Your task to perform on an android device: all mails in gmail Image 0: 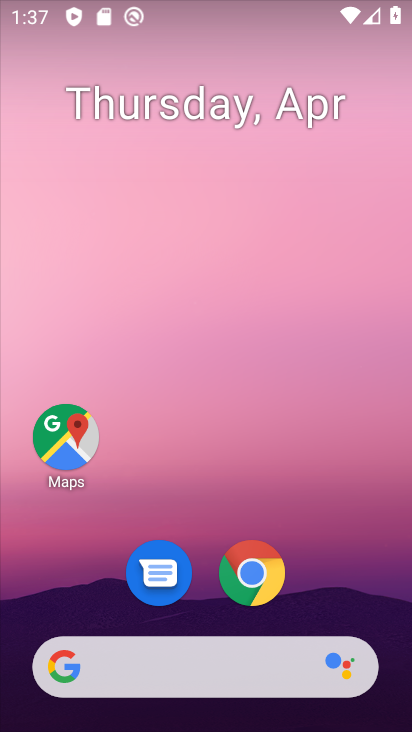
Step 0: drag from (352, 599) to (303, 34)
Your task to perform on an android device: all mails in gmail Image 1: 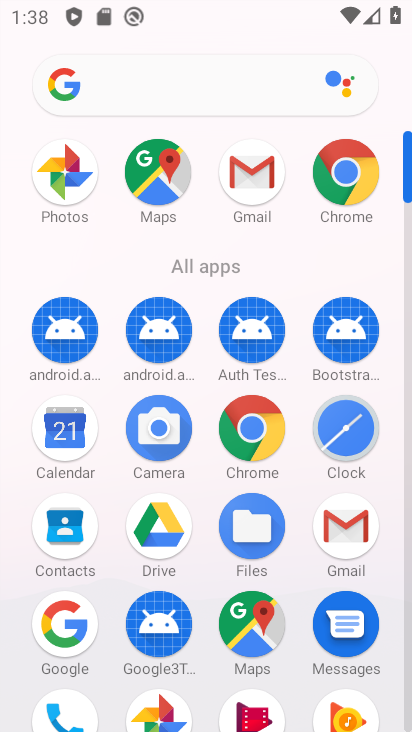
Step 1: click (239, 175)
Your task to perform on an android device: all mails in gmail Image 2: 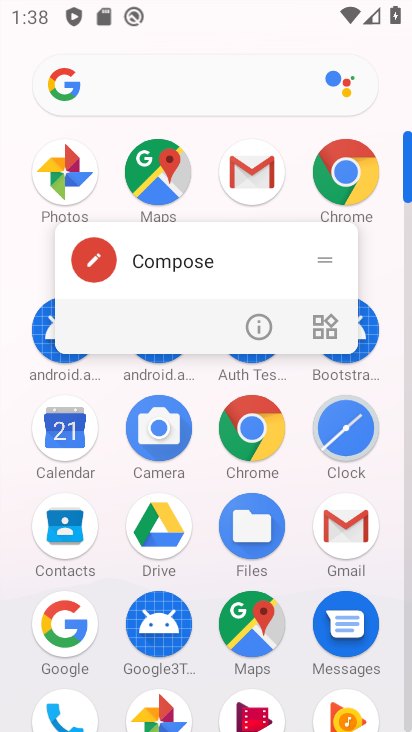
Step 2: click (246, 179)
Your task to perform on an android device: all mails in gmail Image 3: 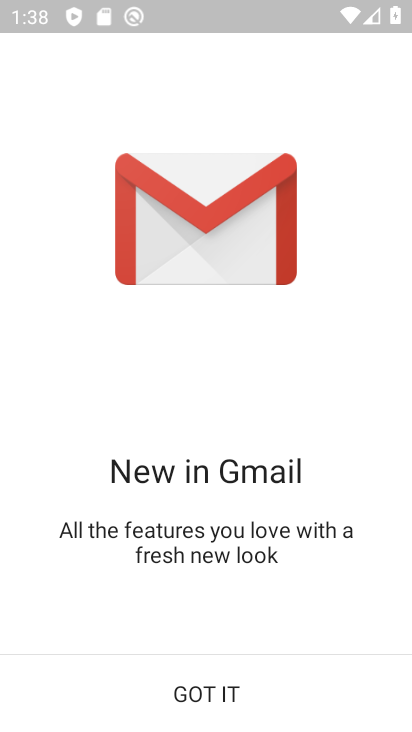
Step 3: click (147, 689)
Your task to perform on an android device: all mails in gmail Image 4: 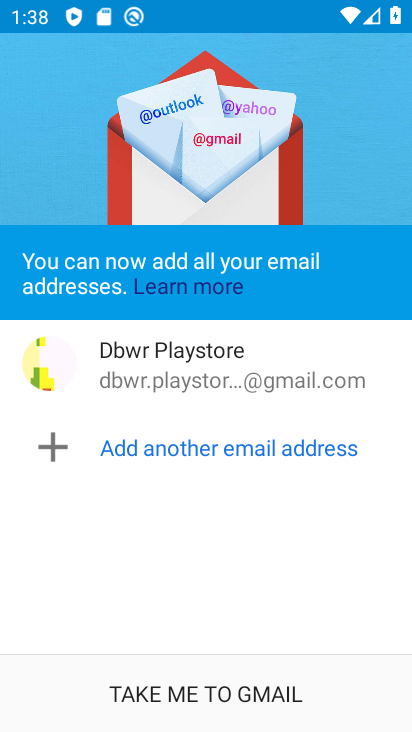
Step 4: click (147, 689)
Your task to perform on an android device: all mails in gmail Image 5: 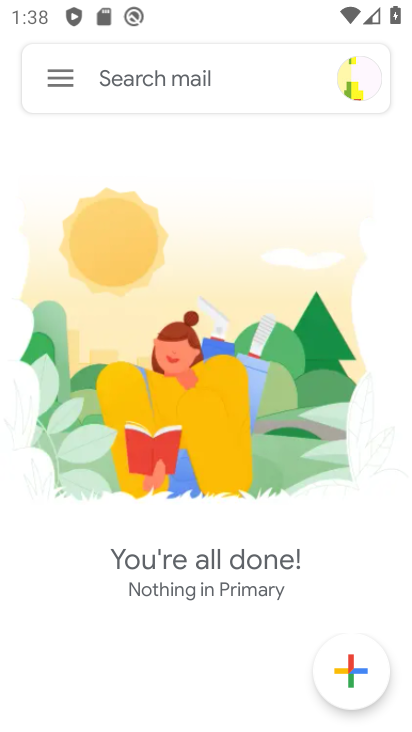
Step 5: click (43, 75)
Your task to perform on an android device: all mails in gmail Image 6: 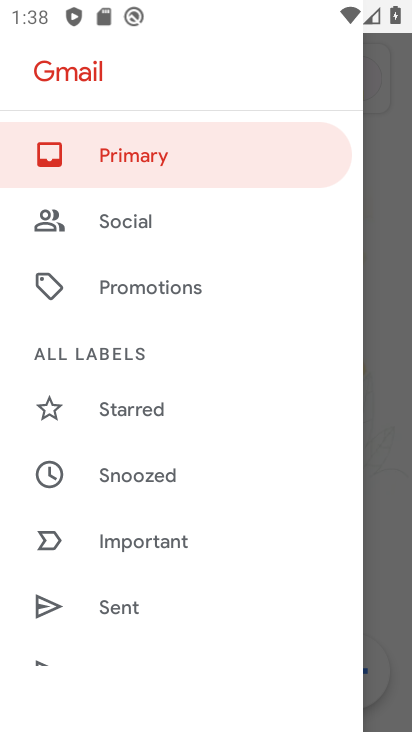
Step 6: drag from (96, 560) to (181, 110)
Your task to perform on an android device: all mails in gmail Image 7: 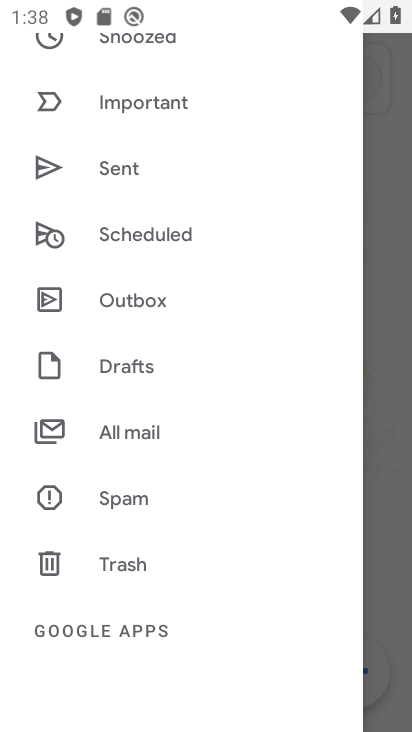
Step 7: click (151, 412)
Your task to perform on an android device: all mails in gmail Image 8: 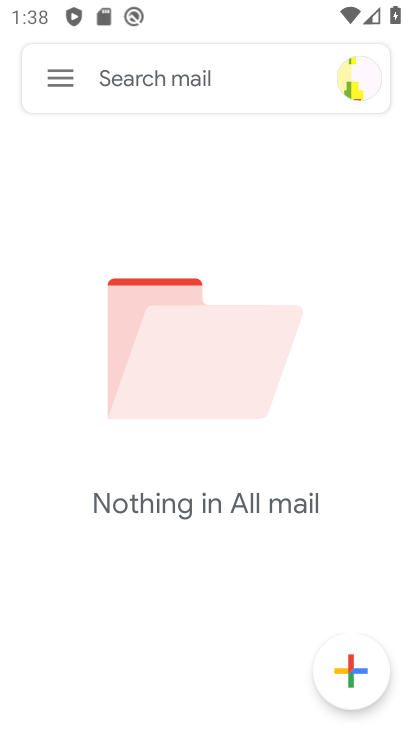
Step 8: task complete